Your task to perform on an android device: Open settings on Google Maps Image 0: 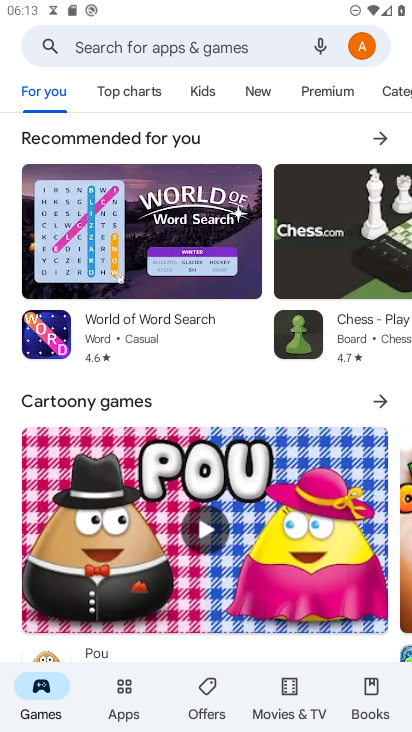
Step 0: press home button
Your task to perform on an android device: Open settings on Google Maps Image 1: 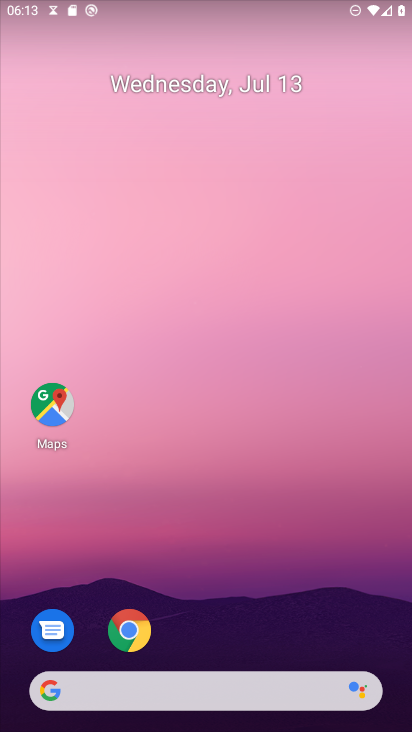
Step 1: drag from (222, 677) to (298, 15)
Your task to perform on an android device: Open settings on Google Maps Image 2: 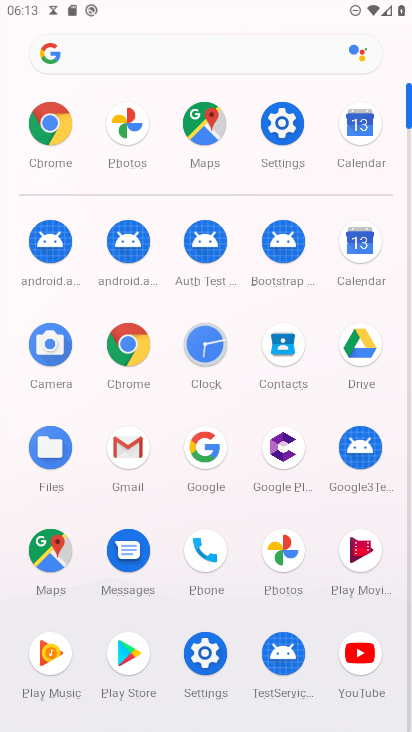
Step 2: click (29, 557)
Your task to perform on an android device: Open settings on Google Maps Image 3: 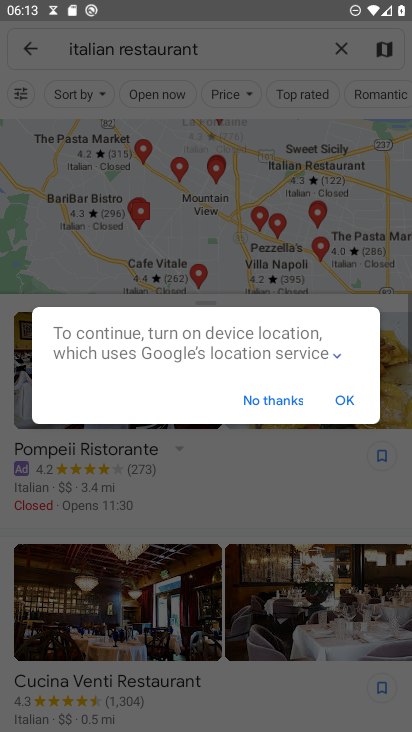
Step 3: press back button
Your task to perform on an android device: Open settings on Google Maps Image 4: 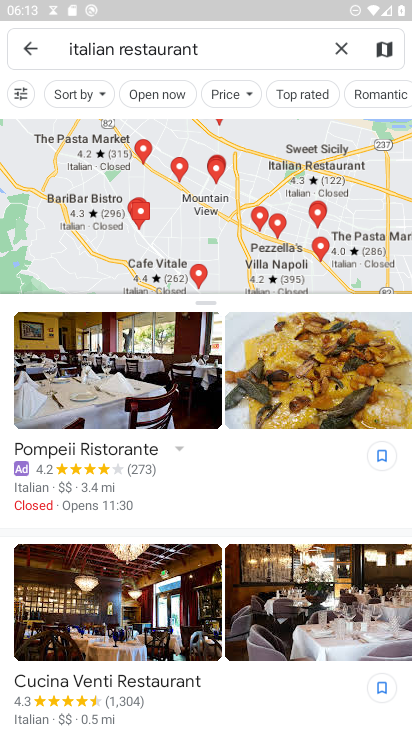
Step 4: press back button
Your task to perform on an android device: Open settings on Google Maps Image 5: 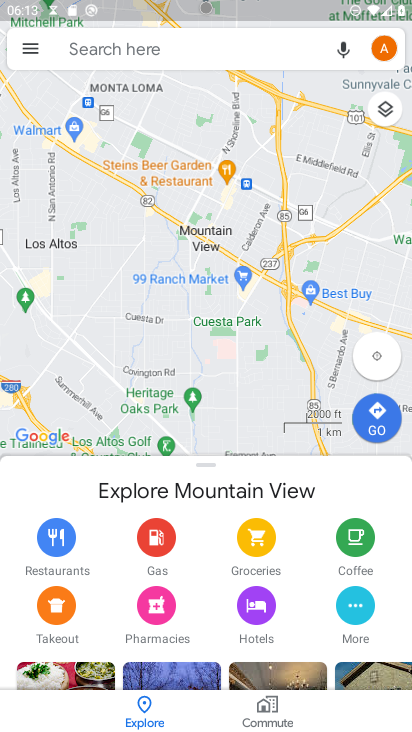
Step 5: click (34, 41)
Your task to perform on an android device: Open settings on Google Maps Image 6: 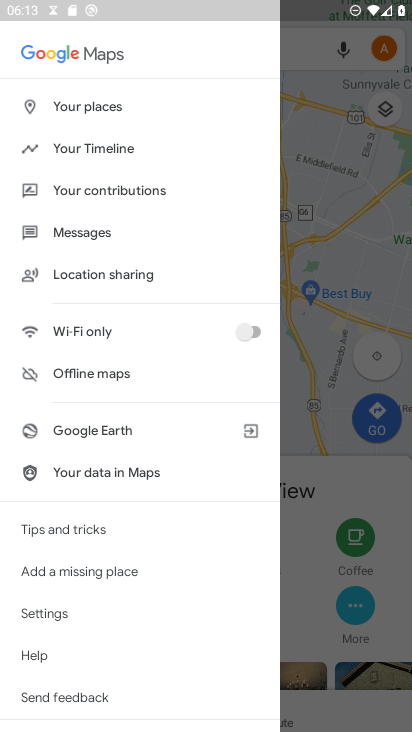
Step 6: click (105, 144)
Your task to perform on an android device: Open settings on Google Maps Image 7: 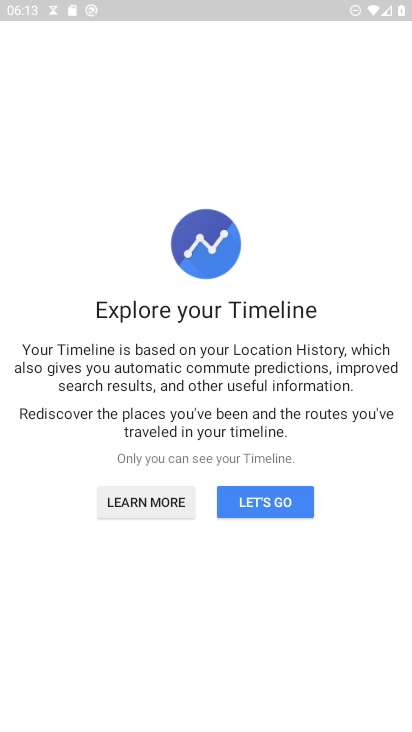
Step 7: click (294, 508)
Your task to perform on an android device: Open settings on Google Maps Image 8: 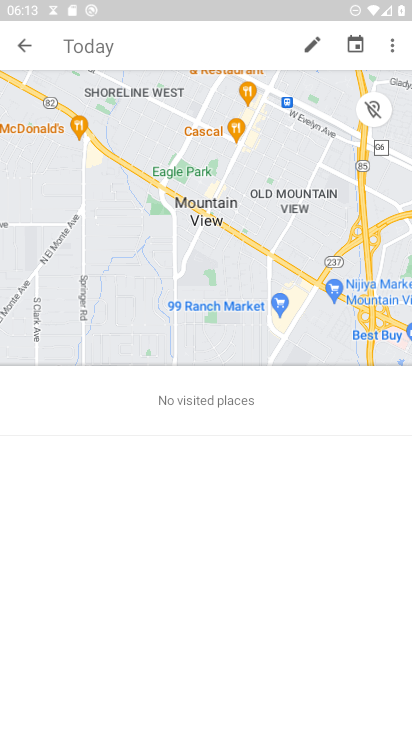
Step 8: click (388, 42)
Your task to perform on an android device: Open settings on Google Maps Image 9: 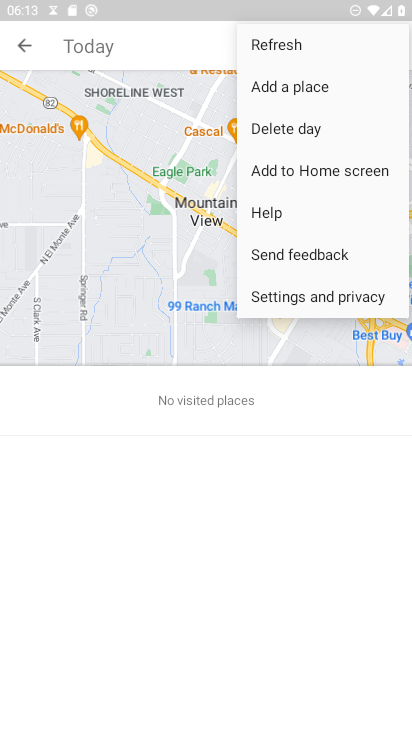
Step 9: click (344, 300)
Your task to perform on an android device: Open settings on Google Maps Image 10: 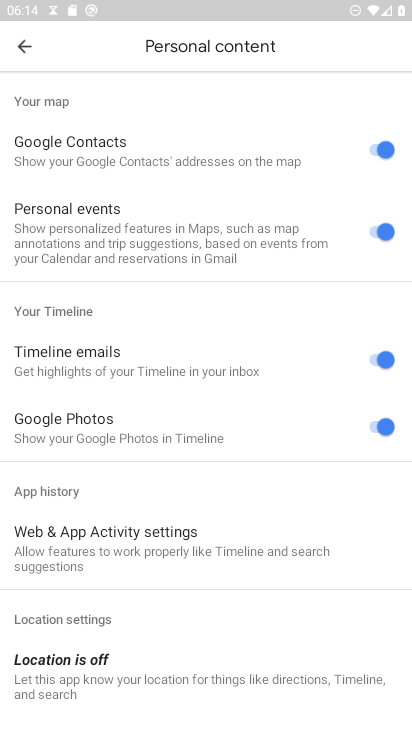
Step 10: task complete